Your task to perform on an android device: Open my contact list Image 0: 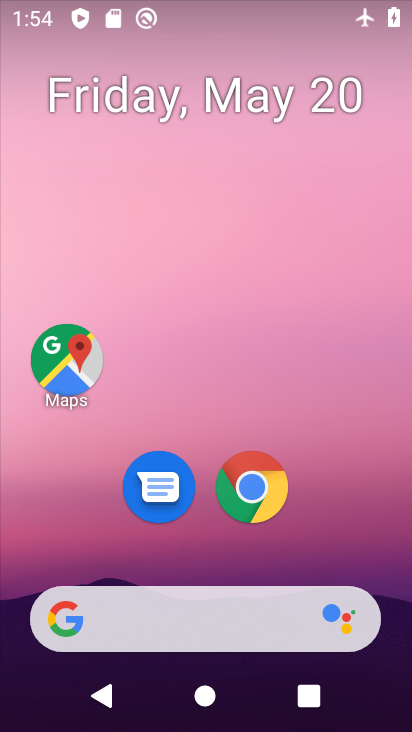
Step 0: drag from (230, 678) to (228, 0)
Your task to perform on an android device: Open my contact list Image 1: 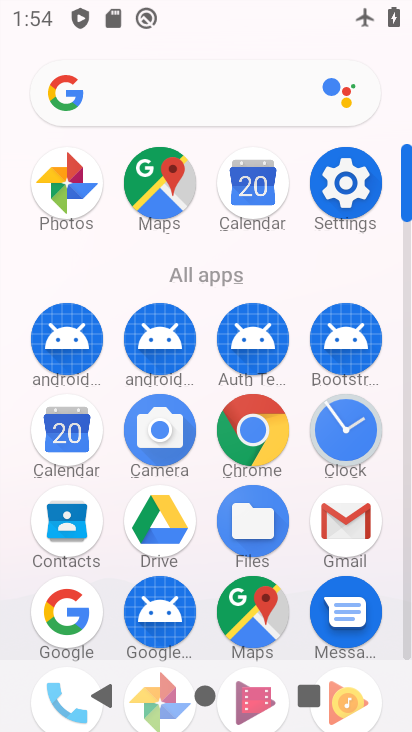
Step 1: click (79, 528)
Your task to perform on an android device: Open my contact list Image 2: 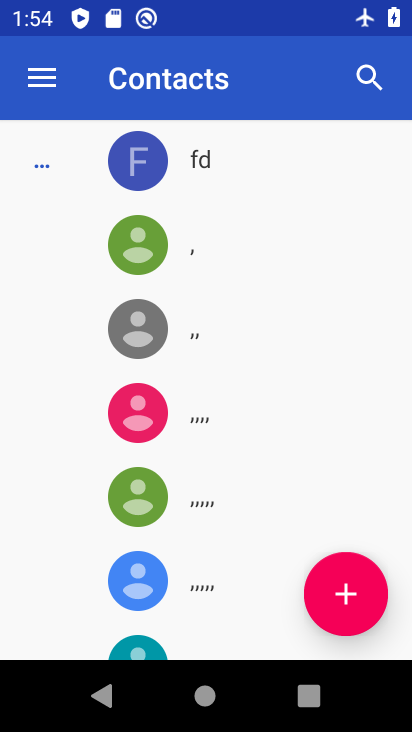
Step 2: drag from (215, 534) to (195, 300)
Your task to perform on an android device: Open my contact list Image 3: 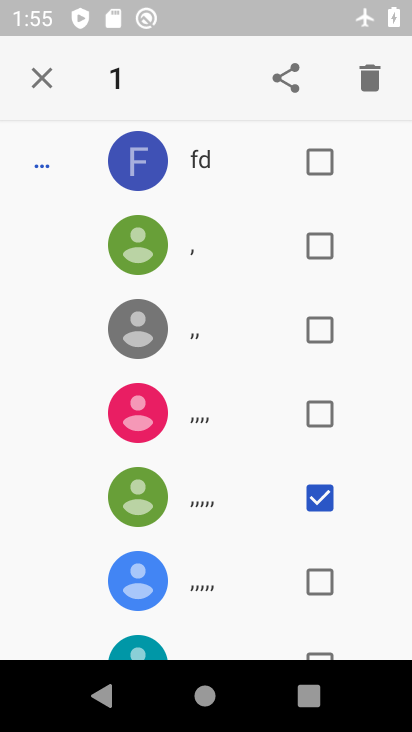
Step 3: click (321, 499)
Your task to perform on an android device: Open my contact list Image 4: 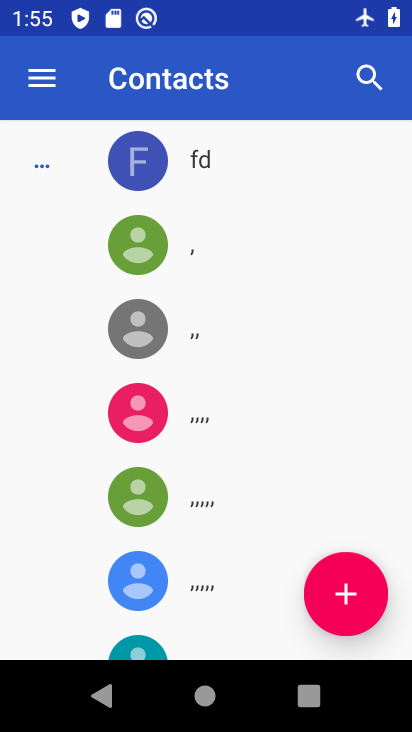
Step 4: task complete